Your task to perform on an android device: all mails in gmail Image 0: 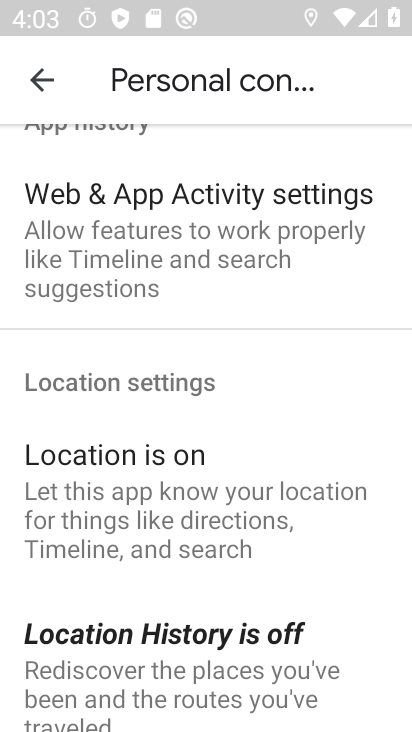
Step 0: press back button
Your task to perform on an android device: all mails in gmail Image 1: 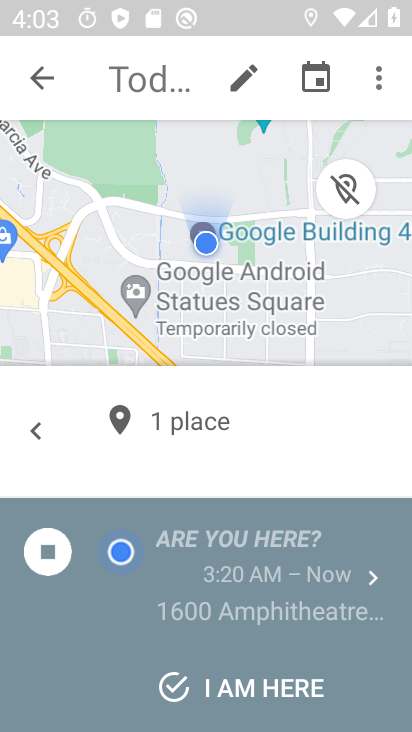
Step 1: press home button
Your task to perform on an android device: all mails in gmail Image 2: 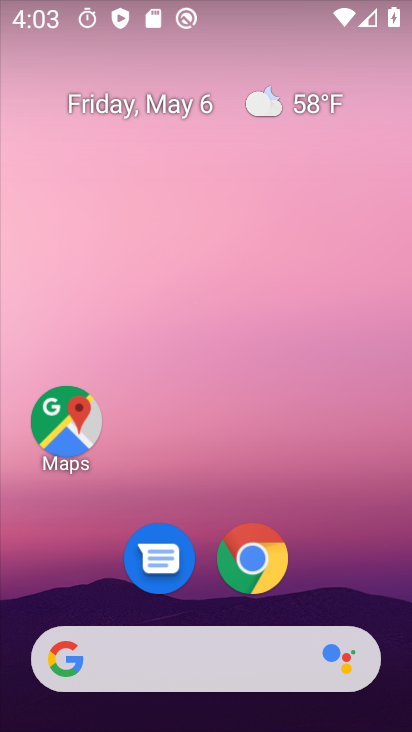
Step 2: drag from (265, 607) to (216, 23)
Your task to perform on an android device: all mails in gmail Image 3: 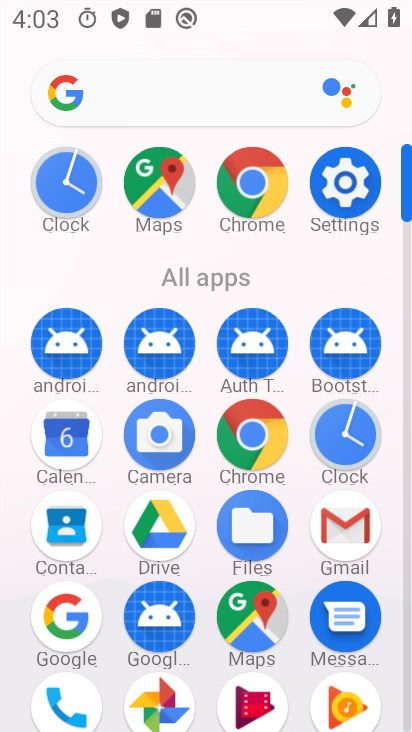
Step 3: click (356, 535)
Your task to perform on an android device: all mails in gmail Image 4: 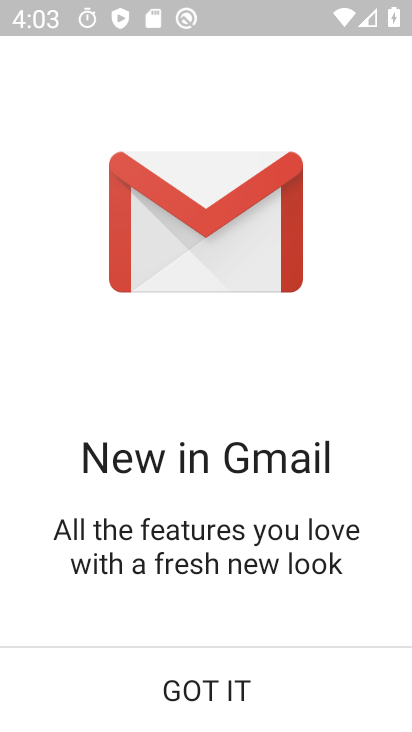
Step 4: click (255, 704)
Your task to perform on an android device: all mails in gmail Image 5: 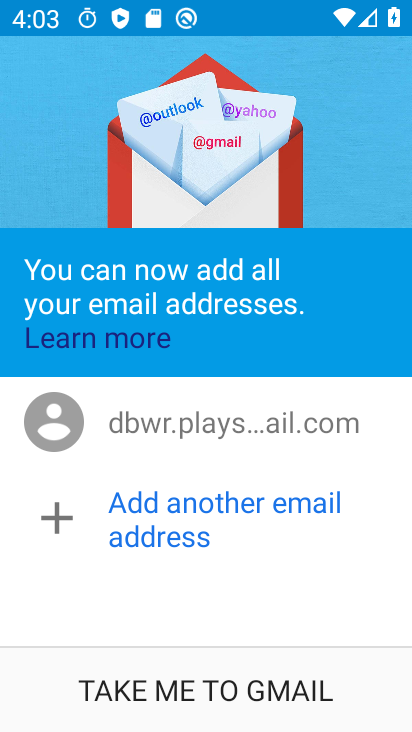
Step 5: click (248, 689)
Your task to perform on an android device: all mails in gmail Image 6: 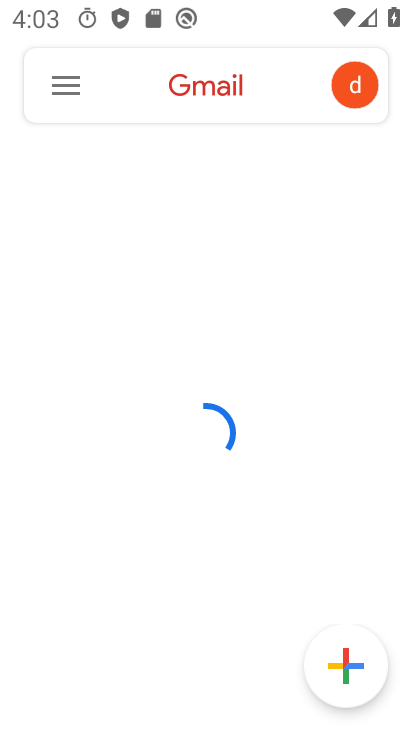
Step 6: drag from (51, 82) to (61, 119)
Your task to perform on an android device: all mails in gmail Image 7: 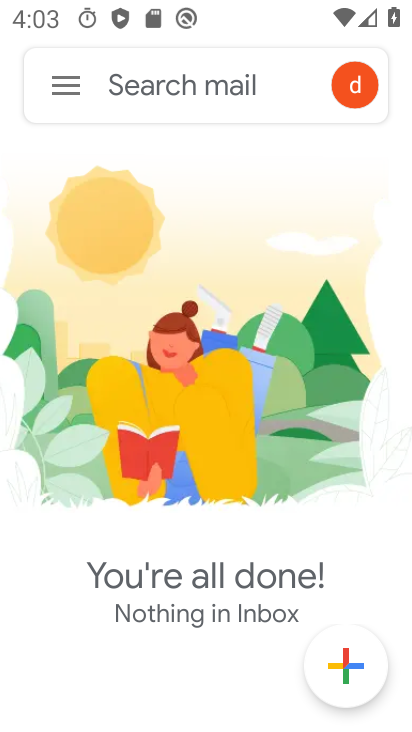
Step 7: click (67, 84)
Your task to perform on an android device: all mails in gmail Image 8: 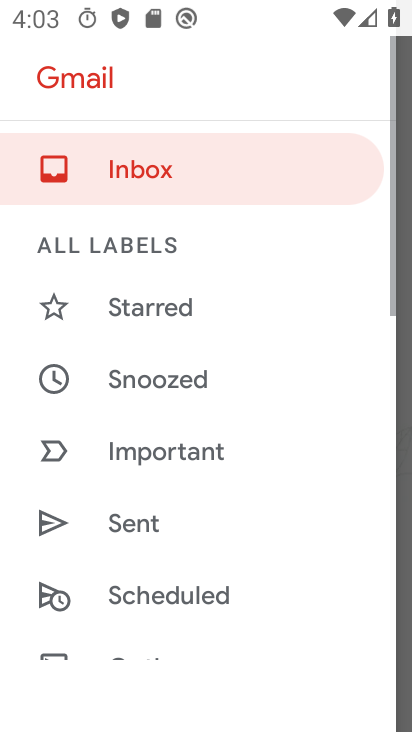
Step 8: drag from (252, 597) to (221, 137)
Your task to perform on an android device: all mails in gmail Image 9: 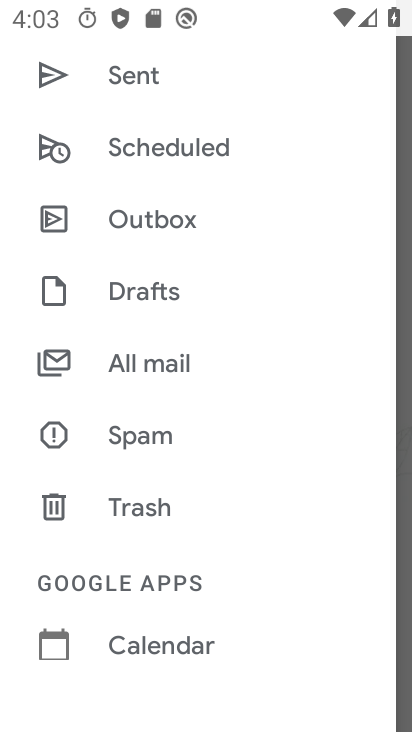
Step 9: click (173, 354)
Your task to perform on an android device: all mails in gmail Image 10: 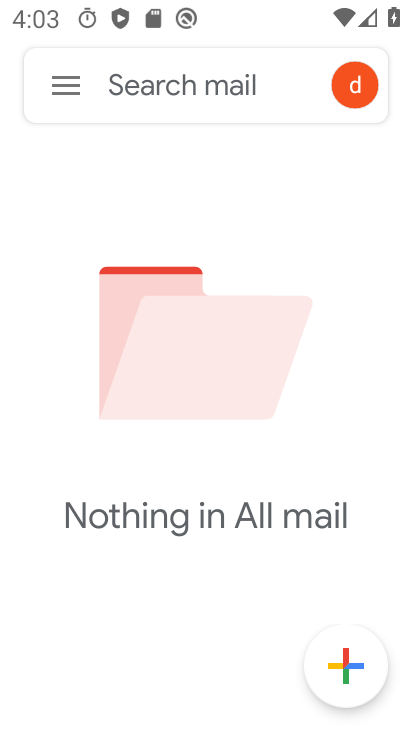
Step 10: task complete